Your task to perform on an android device: remove spam from my inbox in the gmail app Image 0: 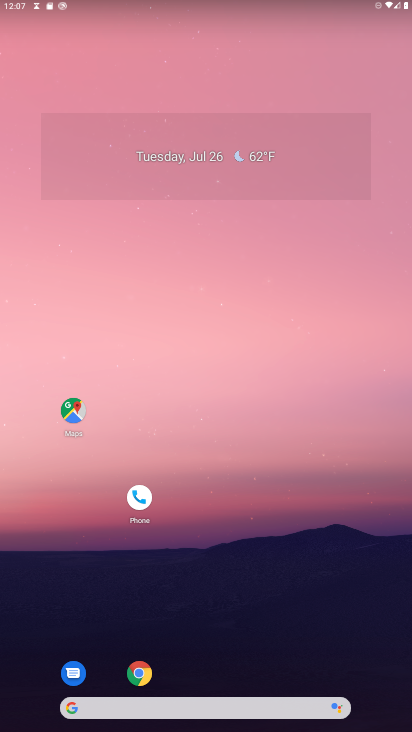
Step 0: drag from (285, 646) to (266, 16)
Your task to perform on an android device: remove spam from my inbox in the gmail app Image 1: 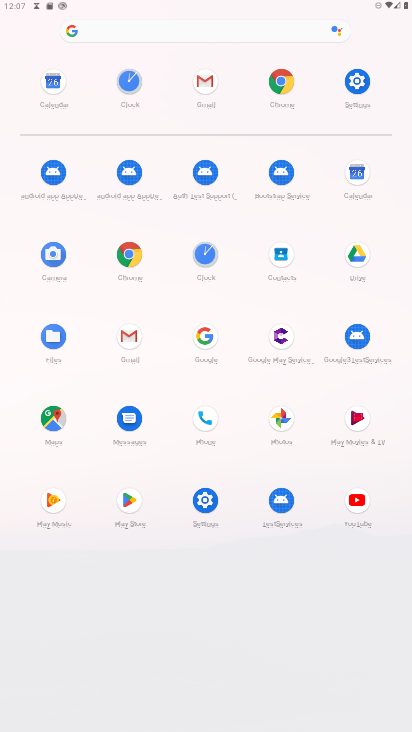
Step 1: click (212, 88)
Your task to perform on an android device: remove spam from my inbox in the gmail app Image 2: 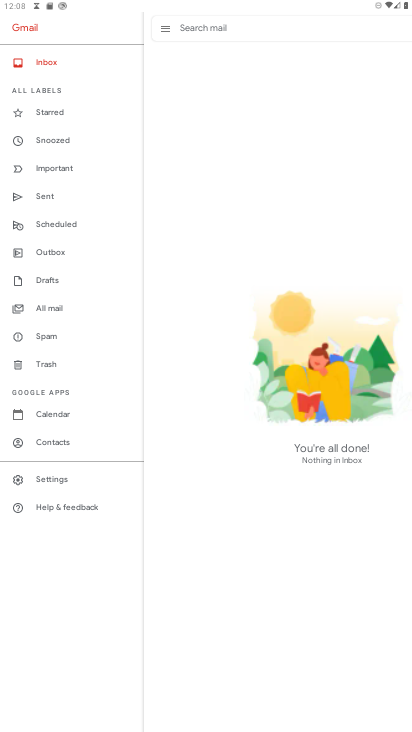
Step 2: click (45, 336)
Your task to perform on an android device: remove spam from my inbox in the gmail app Image 3: 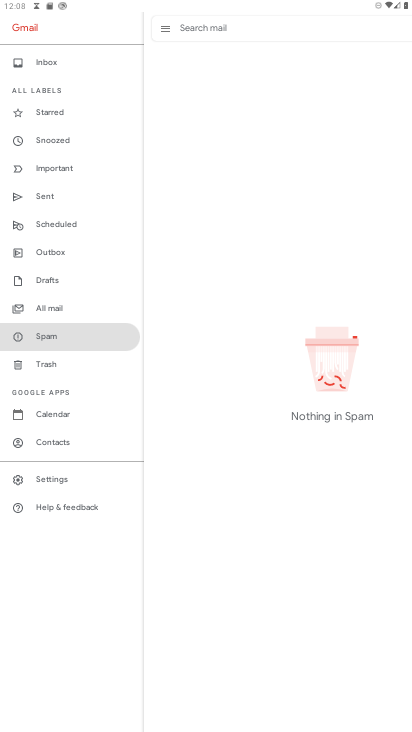
Step 3: task complete